Your task to perform on an android device: see sites visited before in the chrome app Image 0: 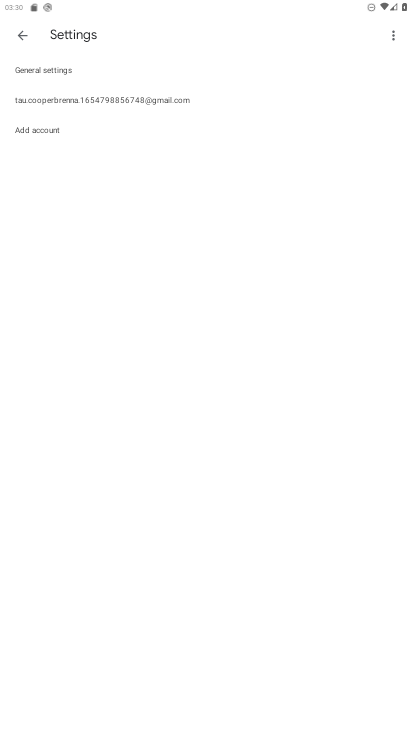
Step 0: press home button
Your task to perform on an android device: see sites visited before in the chrome app Image 1: 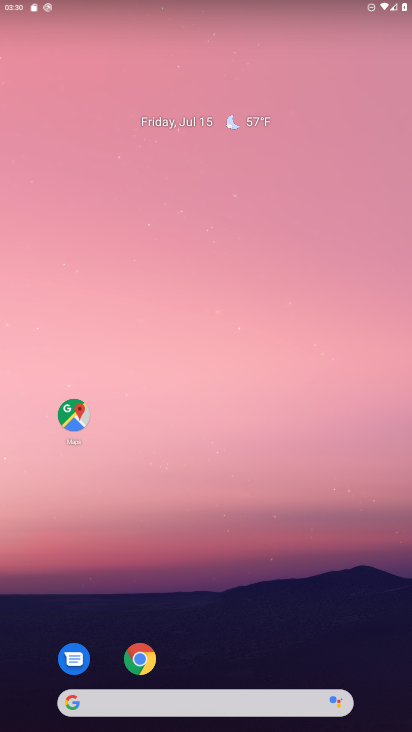
Step 1: click (143, 657)
Your task to perform on an android device: see sites visited before in the chrome app Image 2: 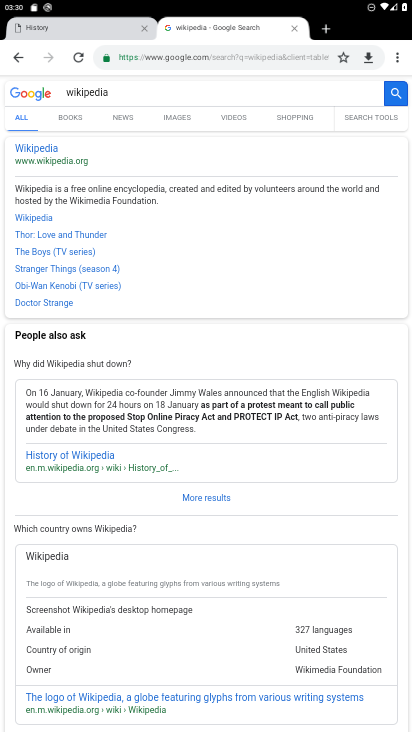
Step 2: click (398, 55)
Your task to perform on an android device: see sites visited before in the chrome app Image 3: 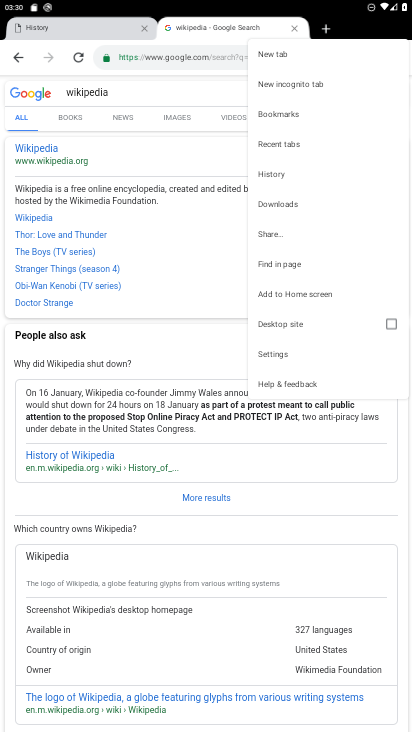
Step 3: click (276, 171)
Your task to perform on an android device: see sites visited before in the chrome app Image 4: 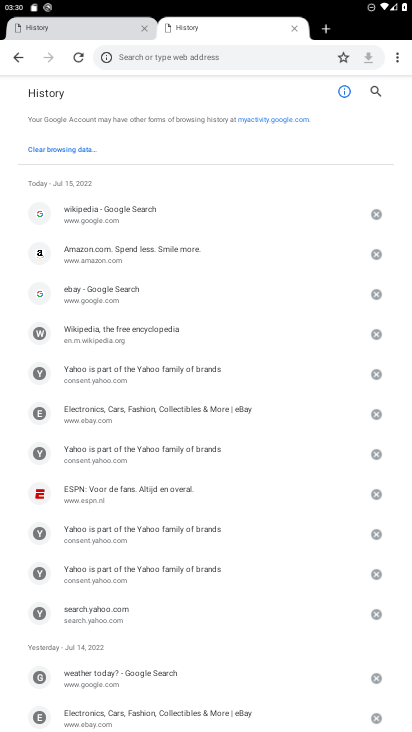
Step 4: task complete